Your task to perform on an android device: Open the Play Movies app and select the watchlist tab. Image 0: 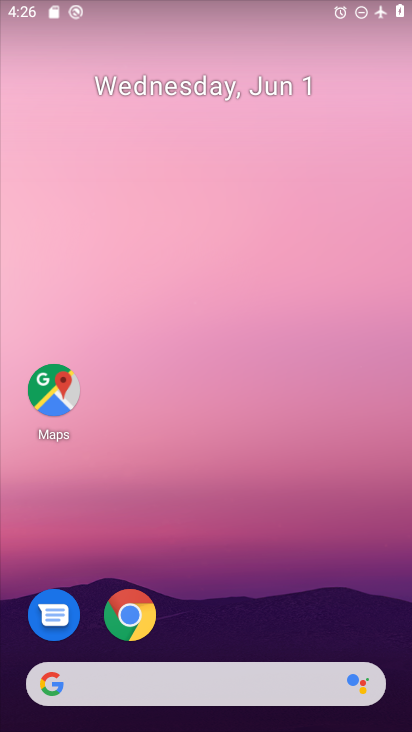
Step 0: drag from (207, 647) to (212, 77)
Your task to perform on an android device: Open the Play Movies app and select the watchlist tab. Image 1: 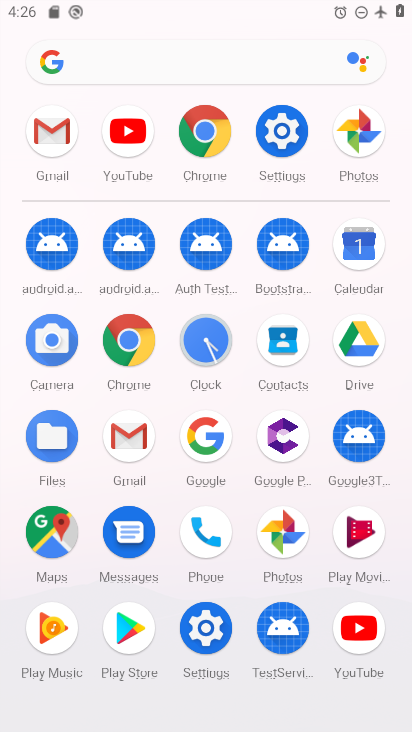
Step 1: click (360, 529)
Your task to perform on an android device: Open the Play Movies app and select the watchlist tab. Image 2: 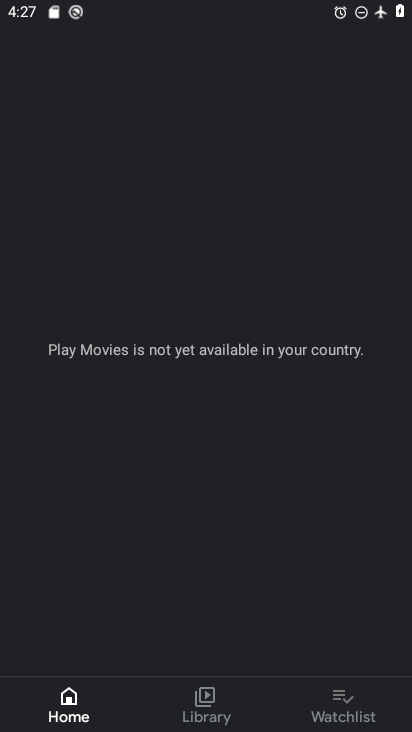
Step 2: click (341, 703)
Your task to perform on an android device: Open the Play Movies app and select the watchlist tab. Image 3: 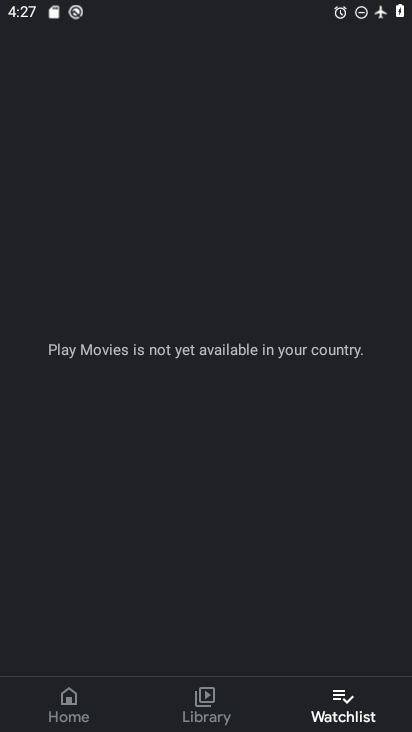
Step 3: task complete